Your task to perform on an android device: add a contact in the contacts app Image 0: 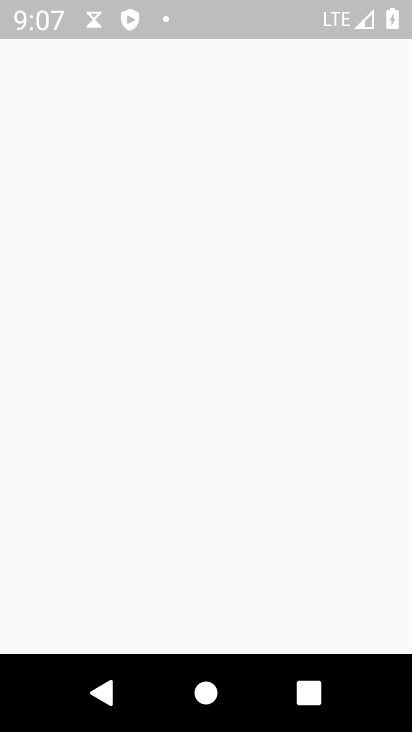
Step 0: press home button
Your task to perform on an android device: add a contact in the contacts app Image 1: 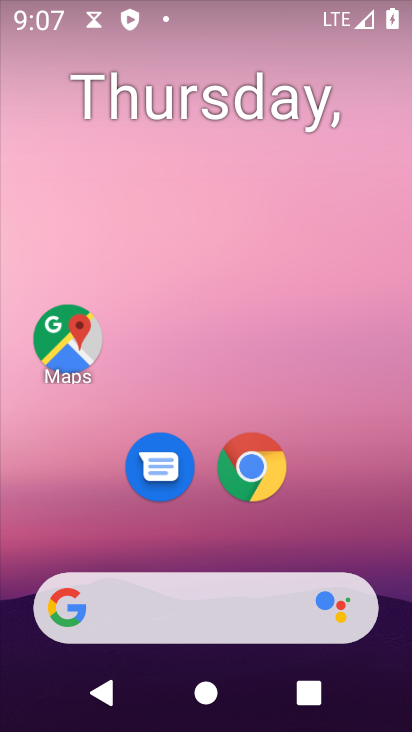
Step 1: drag from (309, 540) to (366, 52)
Your task to perform on an android device: add a contact in the contacts app Image 2: 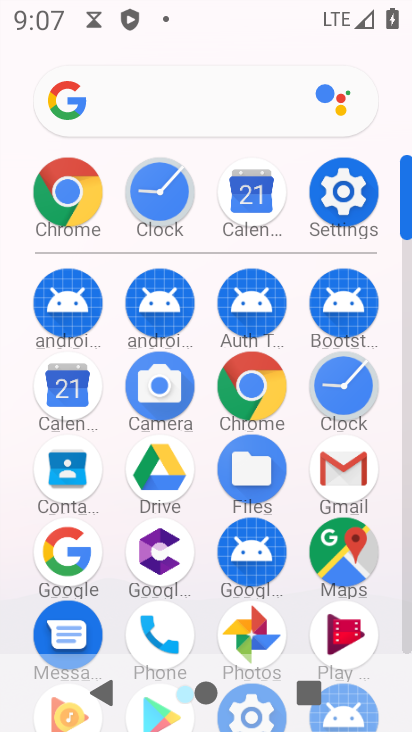
Step 2: click (63, 473)
Your task to perform on an android device: add a contact in the contacts app Image 3: 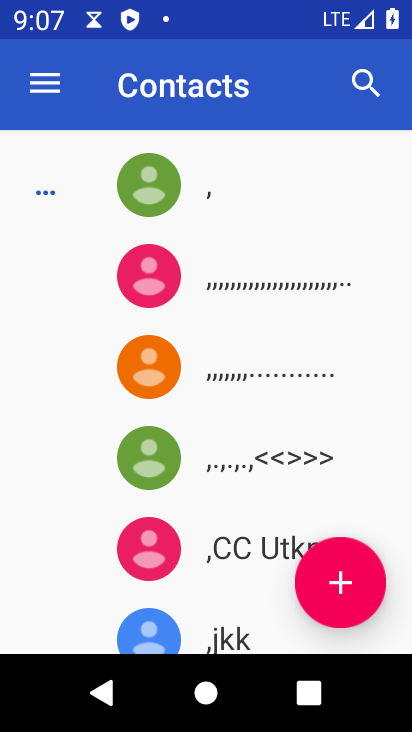
Step 3: click (338, 569)
Your task to perform on an android device: add a contact in the contacts app Image 4: 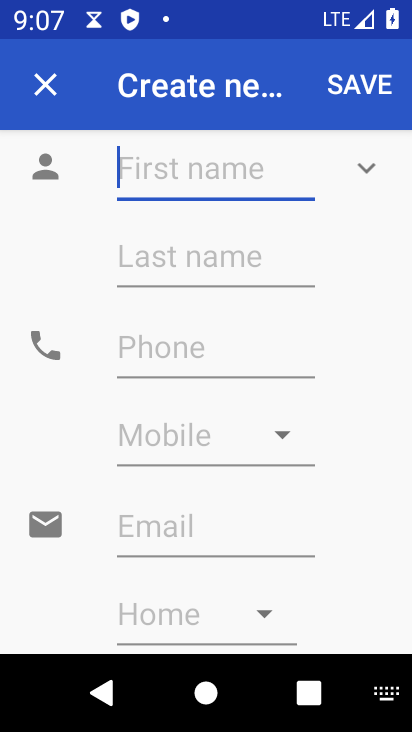
Step 4: type "yyyhhbnnnkkooo"
Your task to perform on an android device: add a contact in the contacts app Image 5: 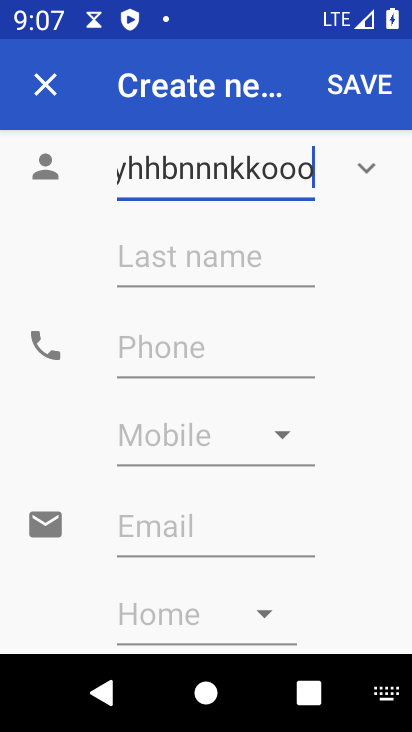
Step 5: click (141, 350)
Your task to perform on an android device: add a contact in the contacts app Image 6: 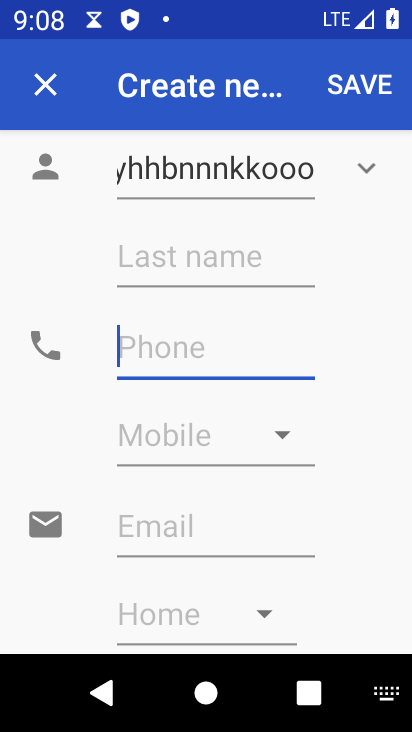
Step 6: type "23232323232"
Your task to perform on an android device: add a contact in the contacts app Image 7: 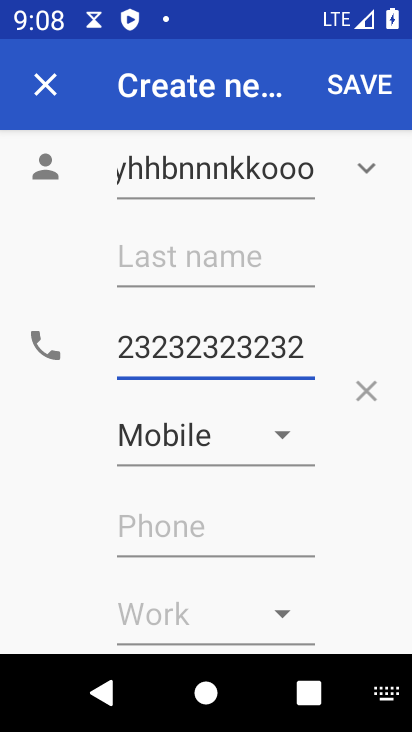
Step 7: click (353, 89)
Your task to perform on an android device: add a contact in the contacts app Image 8: 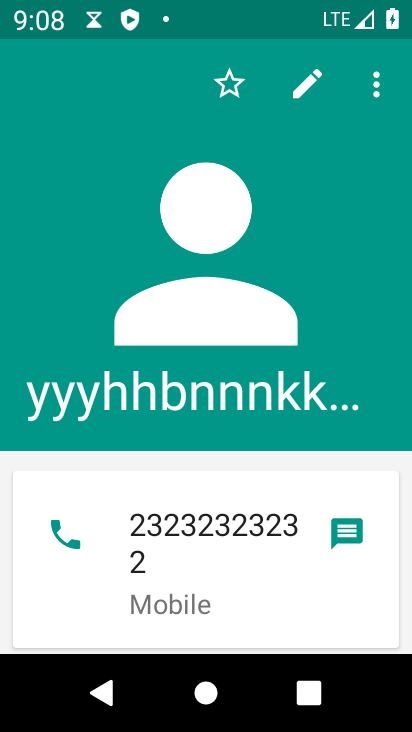
Step 8: task complete